Your task to perform on an android device: Open calendar and show me the third week of next month Image 0: 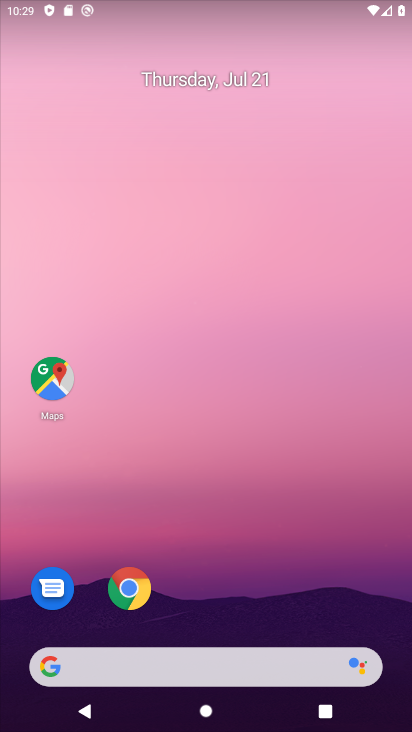
Step 0: drag from (208, 386) to (114, 18)
Your task to perform on an android device: Open calendar and show me the third week of next month Image 1: 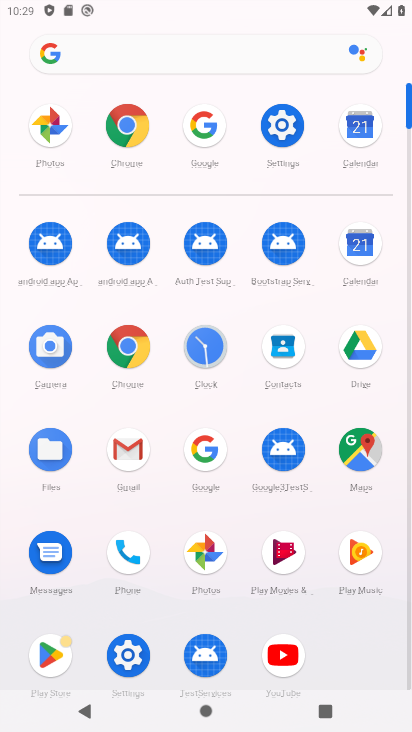
Step 1: click (369, 239)
Your task to perform on an android device: Open calendar and show me the third week of next month Image 2: 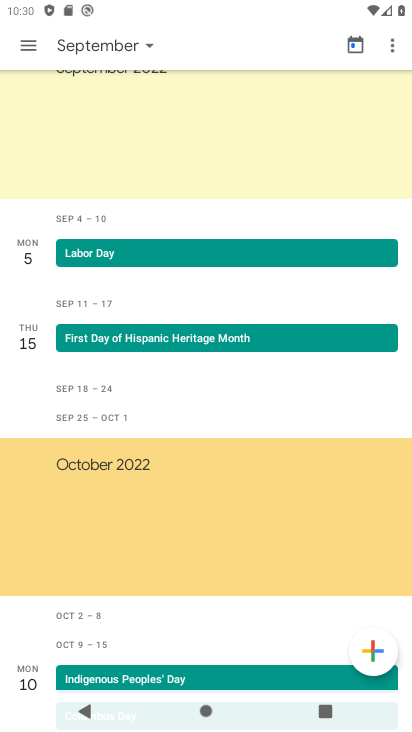
Step 2: click (137, 42)
Your task to perform on an android device: Open calendar and show me the third week of next month Image 3: 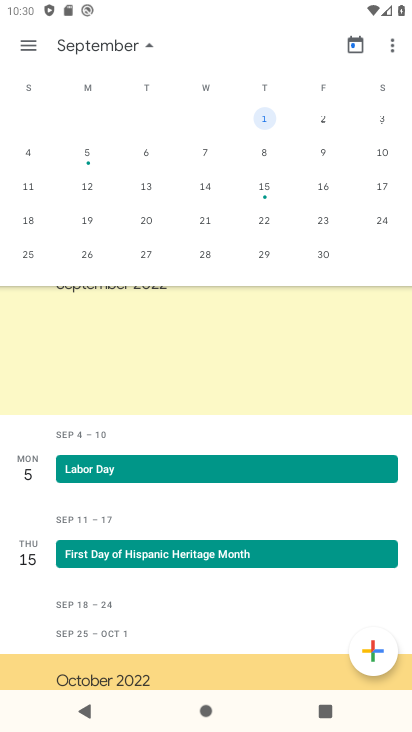
Step 3: drag from (46, 240) to (406, 99)
Your task to perform on an android device: Open calendar and show me the third week of next month Image 4: 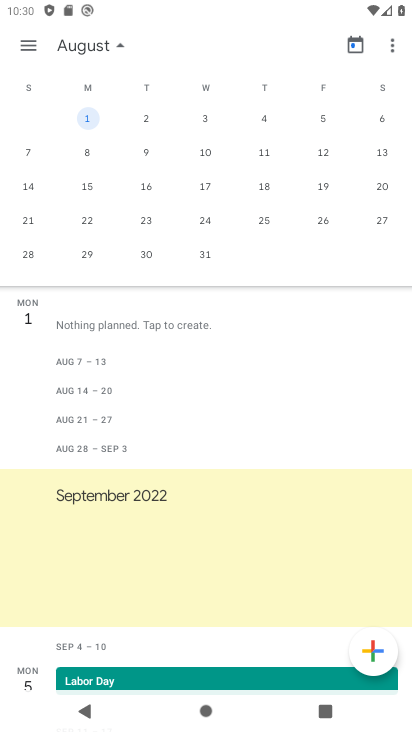
Step 4: click (265, 191)
Your task to perform on an android device: Open calendar and show me the third week of next month Image 5: 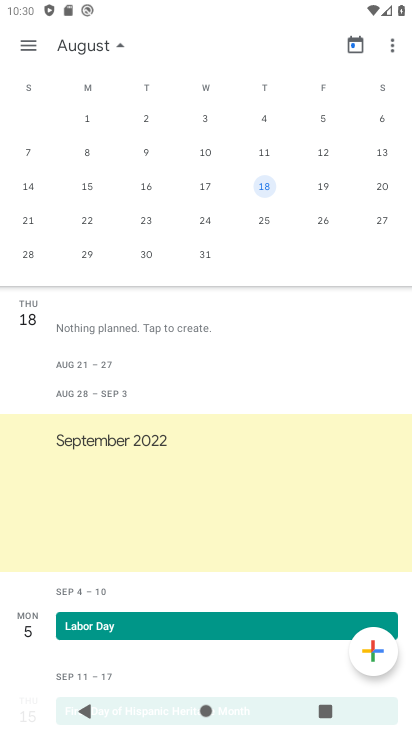
Step 5: task complete